Your task to perform on an android device: Open settings on Google Maps Image 0: 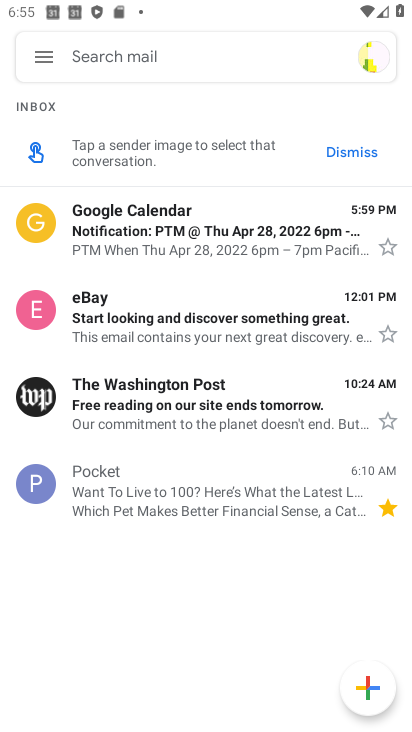
Step 0: press home button
Your task to perform on an android device: Open settings on Google Maps Image 1: 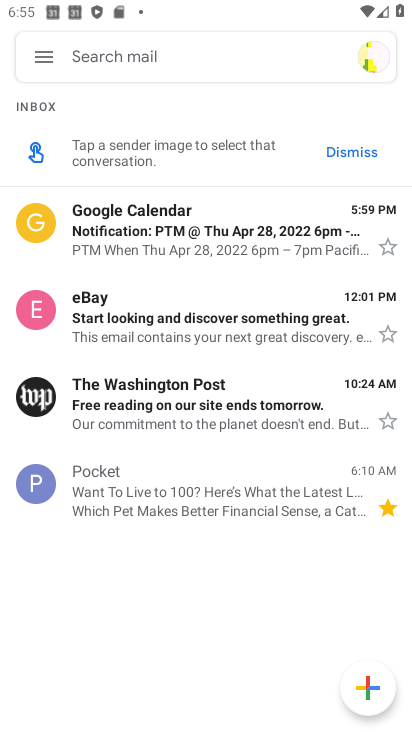
Step 1: press home button
Your task to perform on an android device: Open settings on Google Maps Image 2: 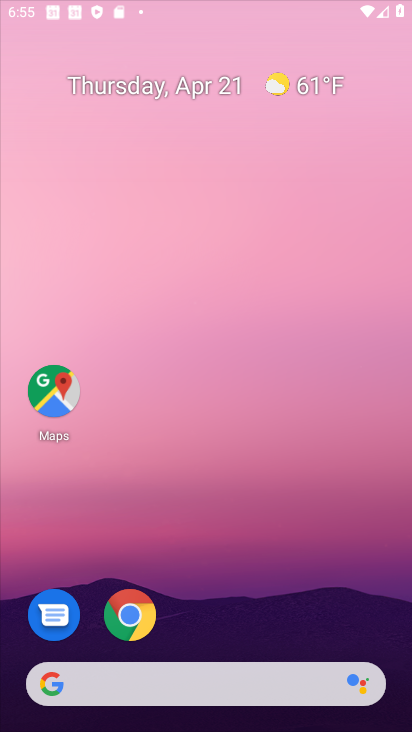
Step 2: drag from (205, 533) to (291, 144)
Your task to perform on an android device: Open settings on Google Maps Image 3: 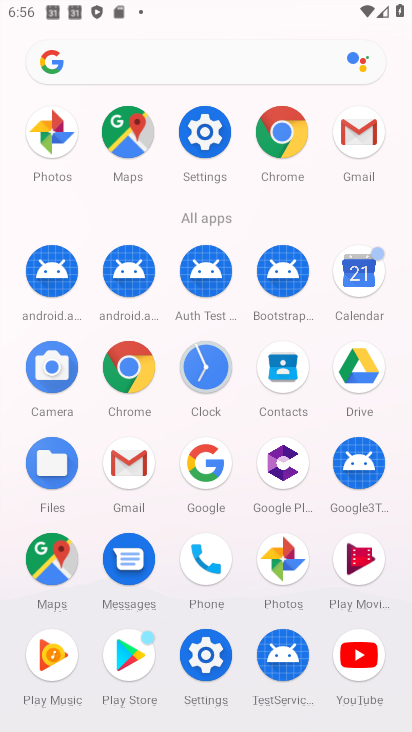
Step 3: click (63, 558)
Your task to perform on an android device: Open settings on Google Maps Image 4: 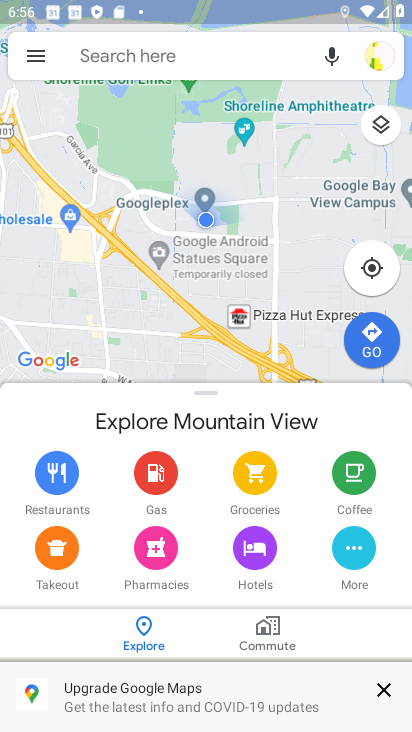
Step 4: click (32, 61)
Your task to perform on an android device: Open settings on Google Maps Image 5: 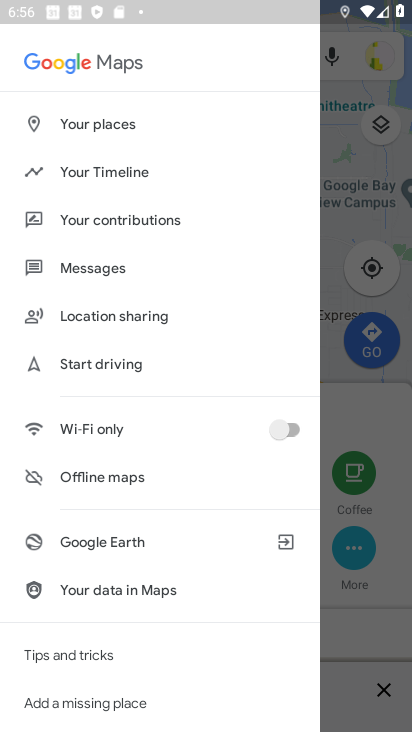
Step 5: drag from (126, 658) to (192, 245)
Your task to perform on an android device: Open settings on Google Maps Image 6: 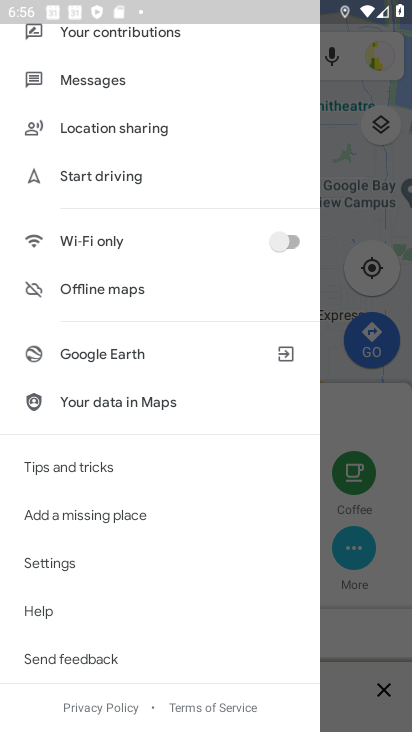
Step 6: click (81, 560)
Your task to perform on an android device: Open settings on Google Maps Image 7: 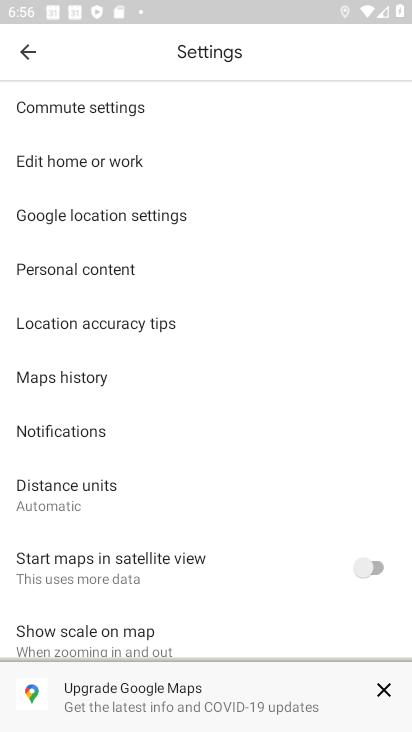
Step 7: task complete